Your task to perform on an android device: Open eBay Image 0: 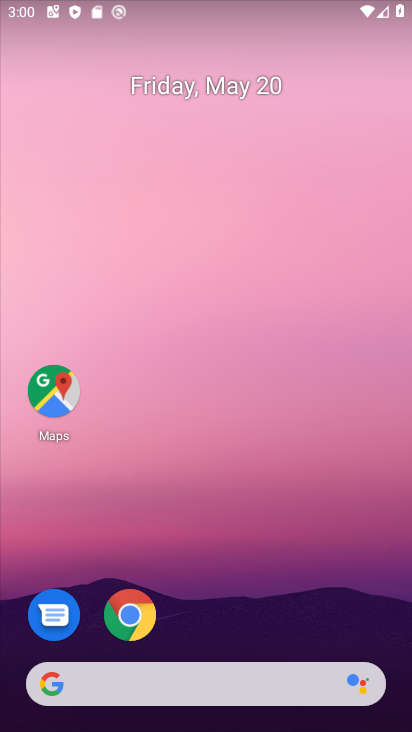
Step 0: drag from (237, 558) to (209, 144)
Your task to perform on an android device: Open eBay Image 1: 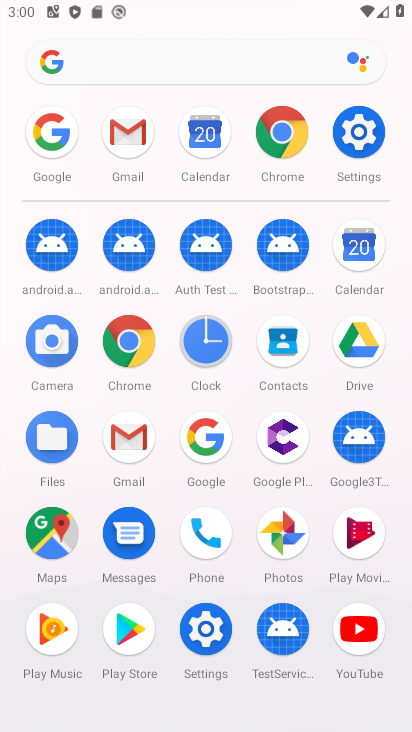
Step 1: click (282, 126)
Your task to perform on an android device: Open eBay Image 2: 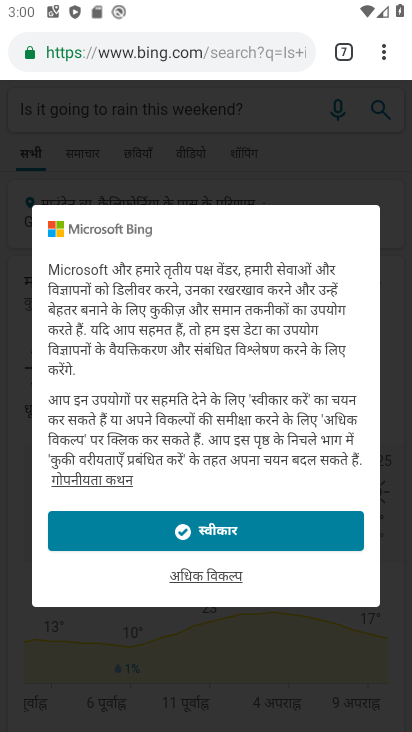
Step 2: click (392, 48)
Your task to perform on an android device: Open eBay Image 3: 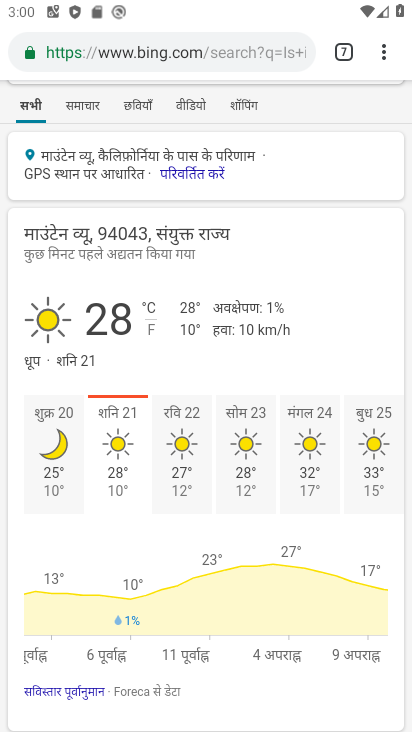
Step 3: click (377, 47)
Your task to perform on an android device: Open eBay Image 4: 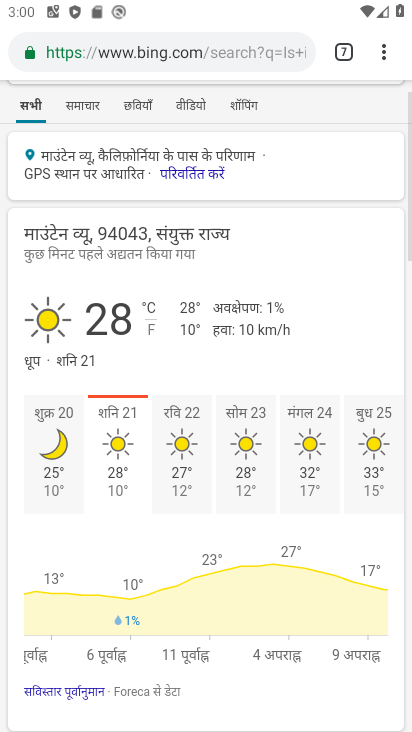
Step 4: click (395, 46)
Your task to perform on an android device: Open eBay Image 5: 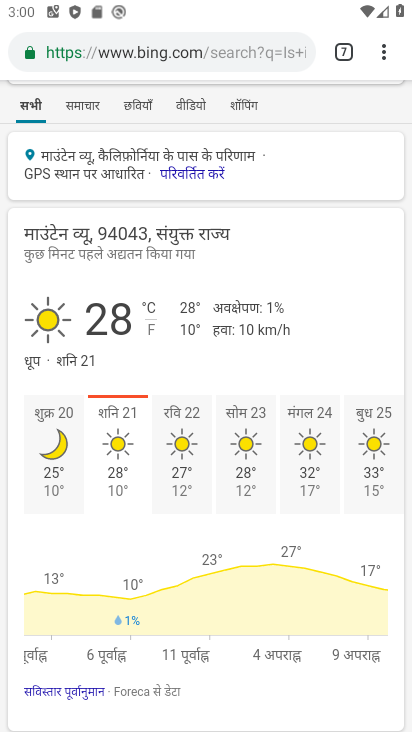
Step 5: click (380, 48)
Your task to perform on an android device: Open eBay Image 6: 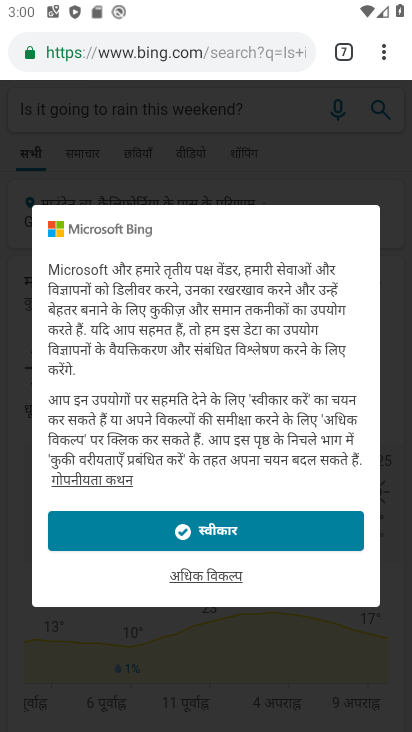
Step 6: click (376, 54)
Your task to perform on an android device: Open eBay Image 7: 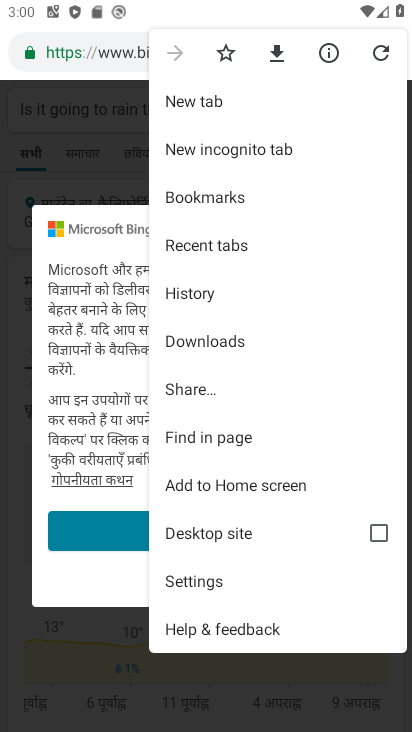
Step 7: click (227, 107)
Your task to perform on an android device: Open eBay Image 8: 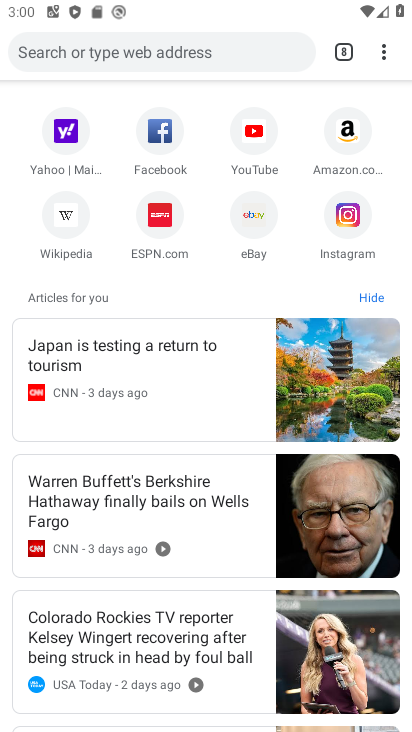
Step 8: click (125, 46)
Your task to perform on an android device: Open eBay Image 9: 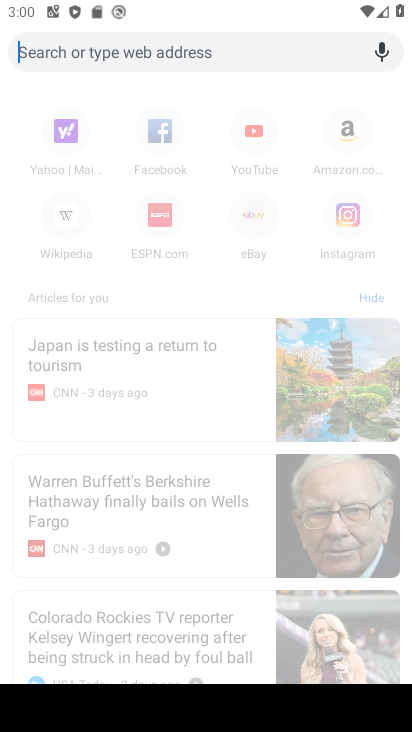
Step 9: type "eBay"
Your task to perform on an android device: Open eBay Image 10: 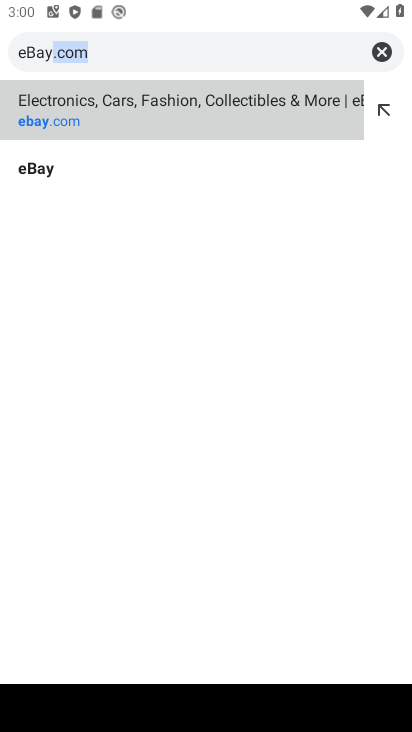
Step 10: click (55, 166)
Your task to perform on an android device: Open eBay Image 11: 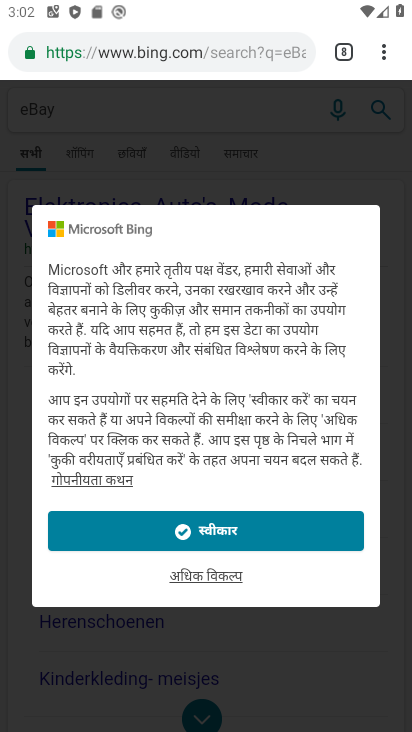
Step 11: click (386, 53)
Your task to perform on an android device: Open eBay Image 12: 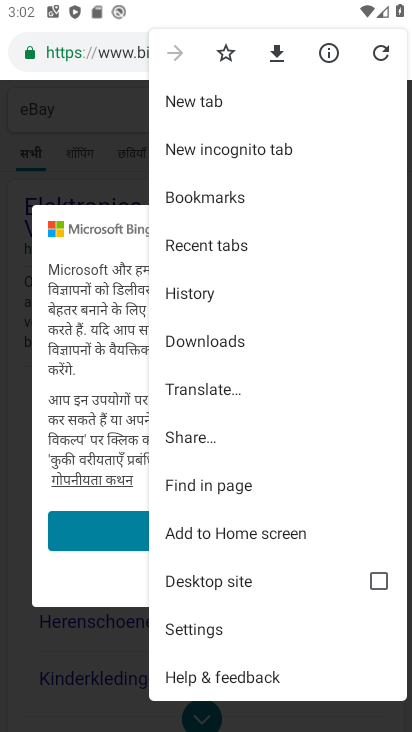
Step 12: click (198, 99)
Your task to perform on an android device: Open eBay Image 13: 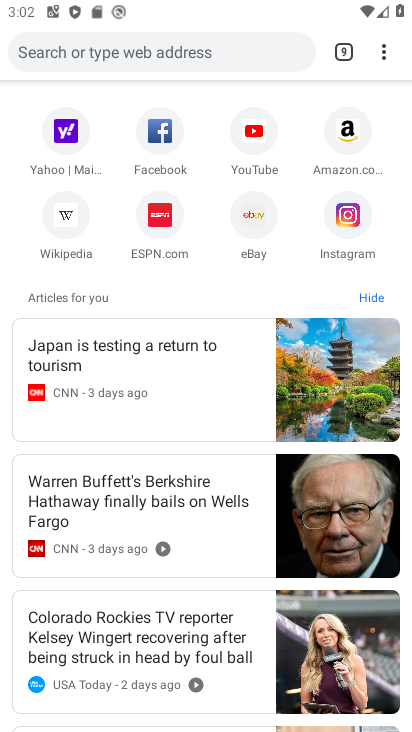
Step 13: click (163, 43)
Your task to perform on an android device: Open eBay Image 14: 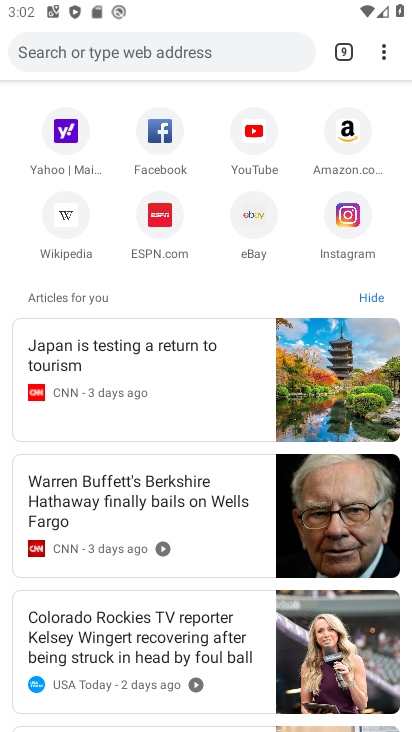
Step 14: type " eBay"
Your task to perform on an android device: Open eBay Image 15: 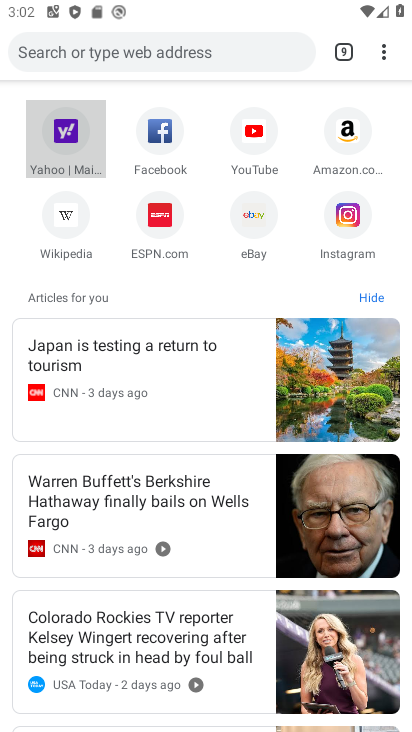
Step 15: click (113, 45)
Your task to perform on an android device: Open eBay Image 16: 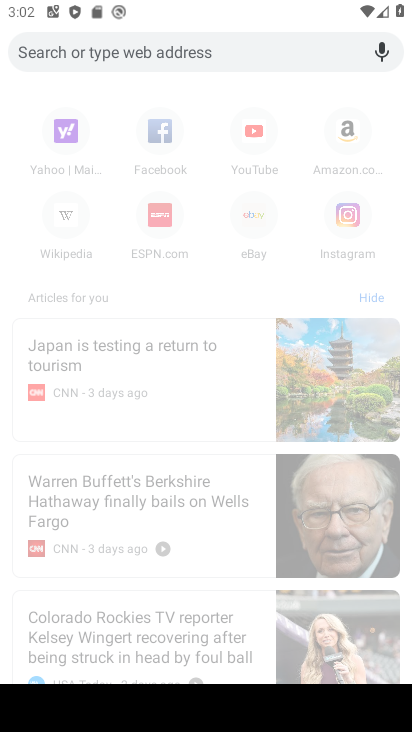
Step 16: click (163, 42)
Your task to perform on an android device: Open eBay Image 17: 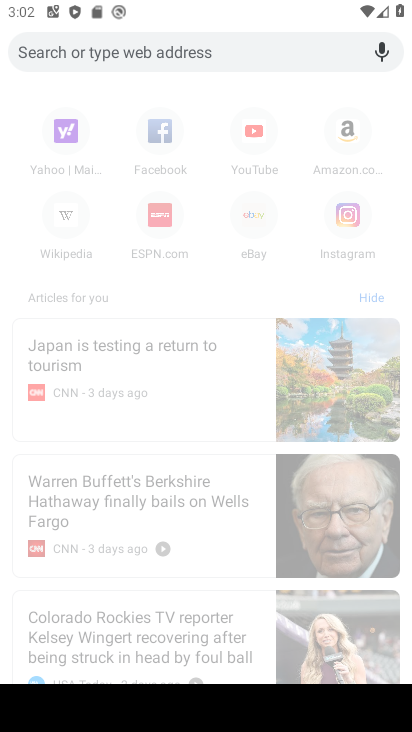
Step 17: click (307, 46)
Your task to perform on an android device: Open eBay Image 18: 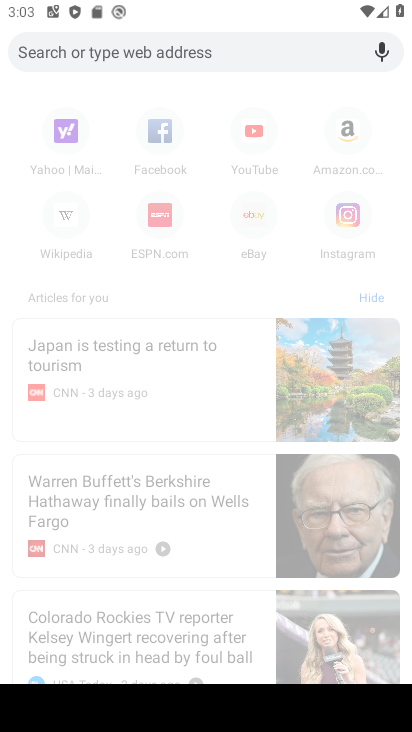
Step 18: type "eBay"
Your task to perform on an android device: Open eBay Image 19: 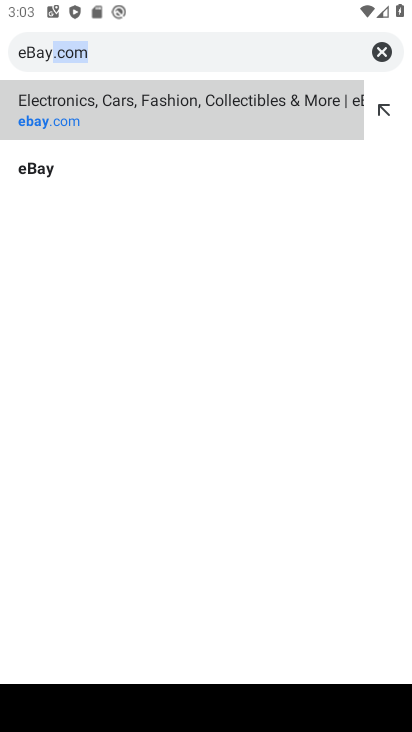
Step 19: click (61, 161)
Your task to perform on an android device: Open eBay Image 20: 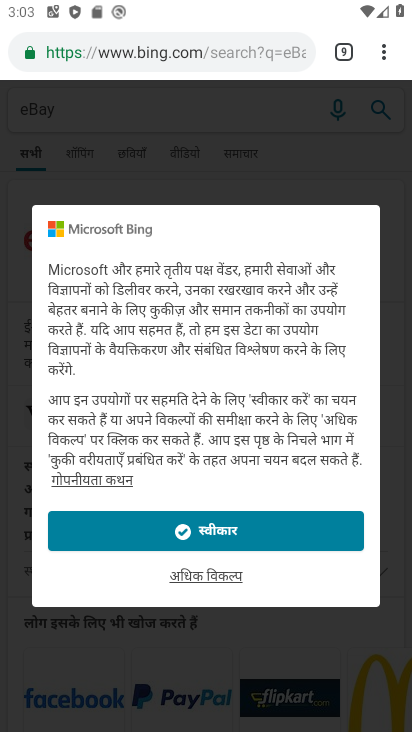
Step 20: task complete